Your task to perform on an android device: Go to eBay Image 0: 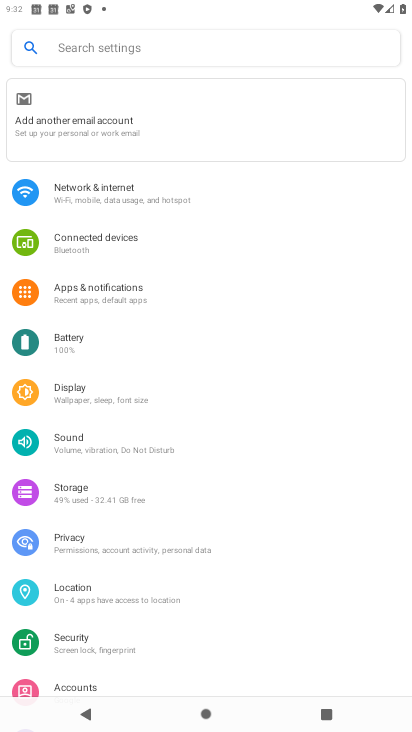
Step 0: drag from (178, 621) to (184, 442)
Your task to perform on an android device: Go to eBay Image 1: 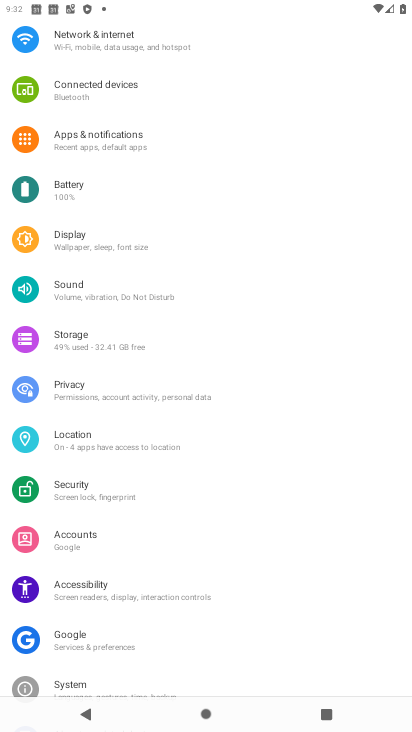
Step 1: press home button
Your task to perform on an android device: Go to eBay Image 2: 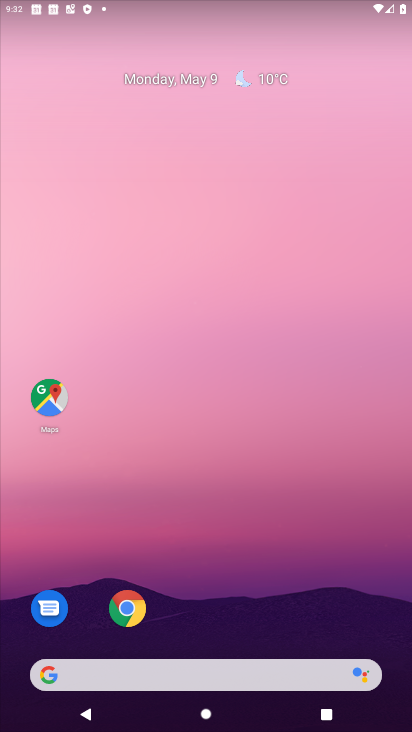
Step 2: click (117, 620)
Your task to perform on an android device: Go to eBay Image 3: 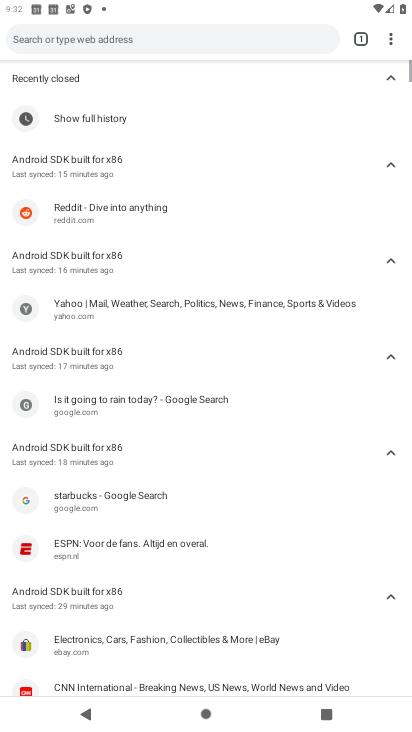
Step 3: click (72, 51)
Your task to perform on an android device: Go to eBay Image 4: 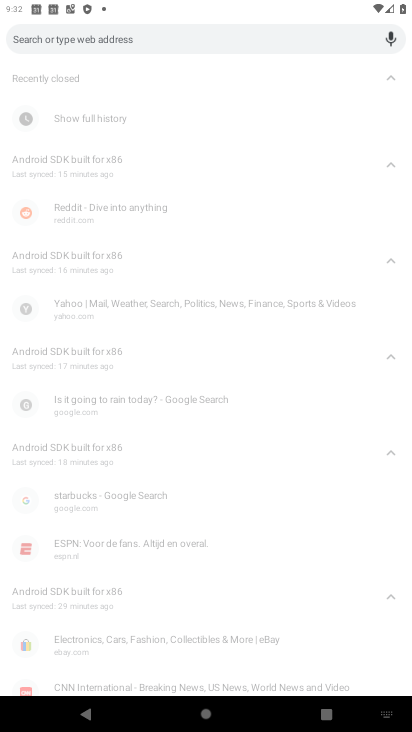
Step 4: type "ebay"
Your task to perform on an android device: Go to eBay Image 5: 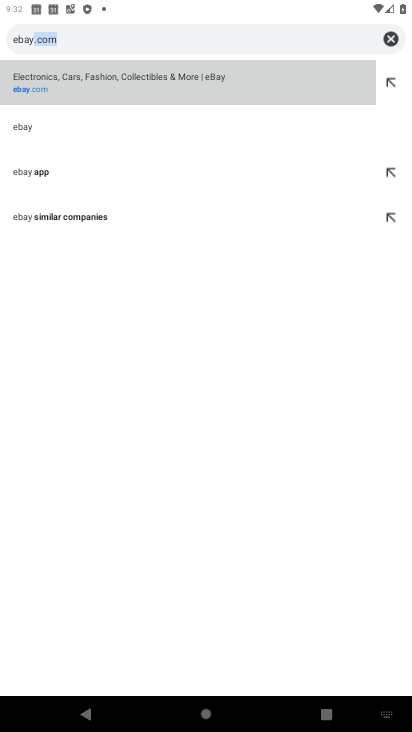
Step 5: click (58, 74)
Your task to perform on an android device: Go to eBay Image 6: 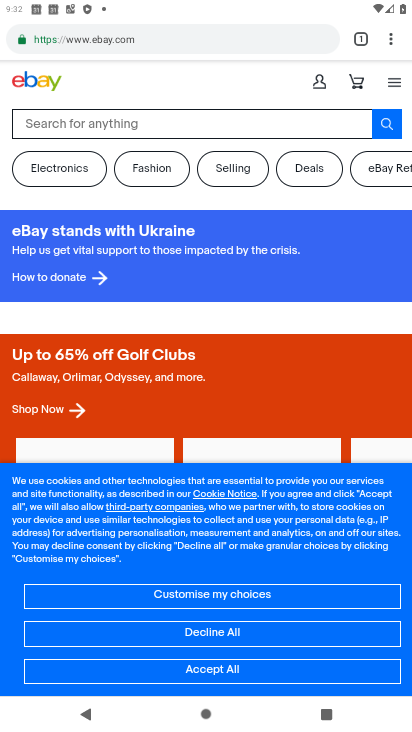
Step 6: task complete